Your task to perform on an android device: toggle wifi Image 0: 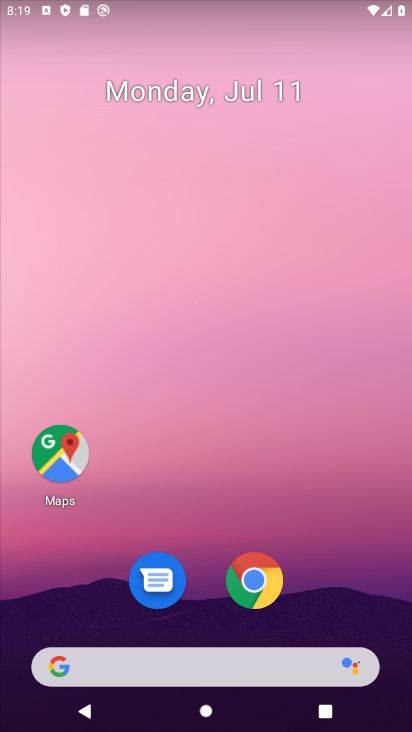
Step 0: drag from (323, 559) to (280, 14)
Your task to perform on an android device: toggle wifi Image 1: 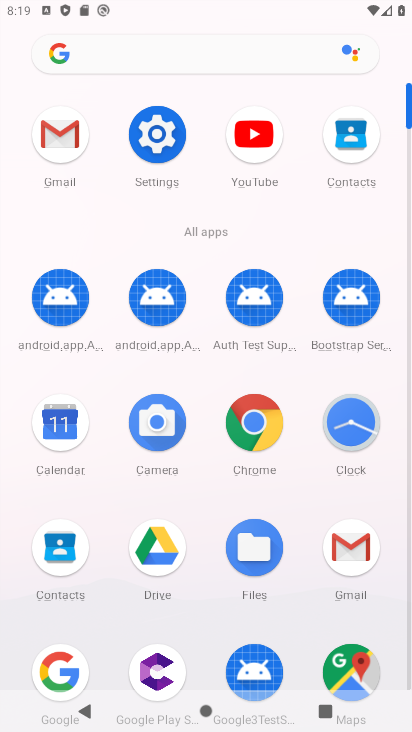
Step 1: click (167, 129)
Your task to perform on an android device: toggle wifi Image 2: 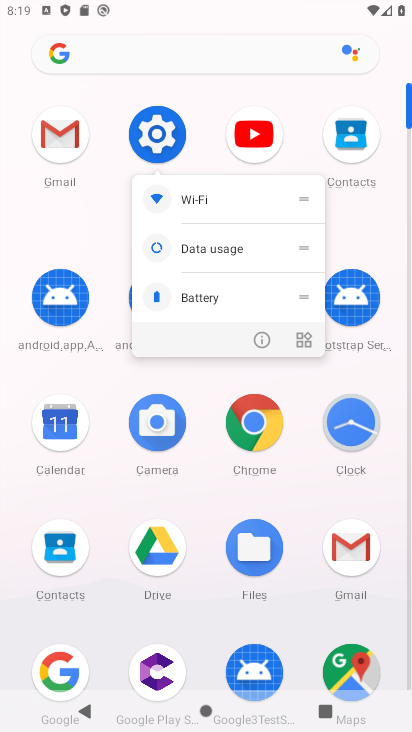
Step 2: click (167, 127)
Your task to perform on an android device: toggle wifi Image 3: 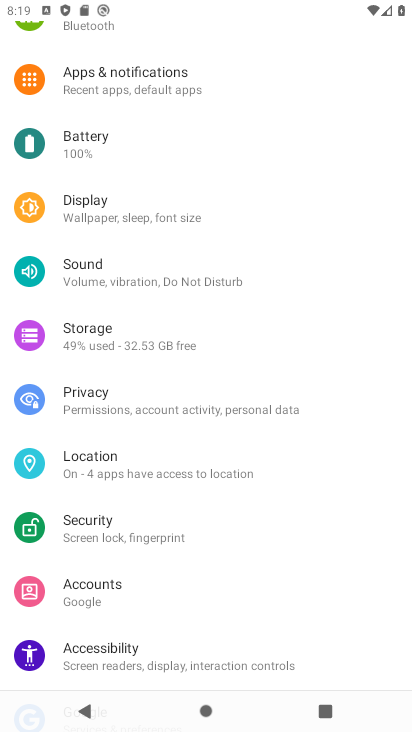
Step 3: drag from (260, 232) to (260, 634)
Your task to perform on an android device: toggle wifi Image 4: 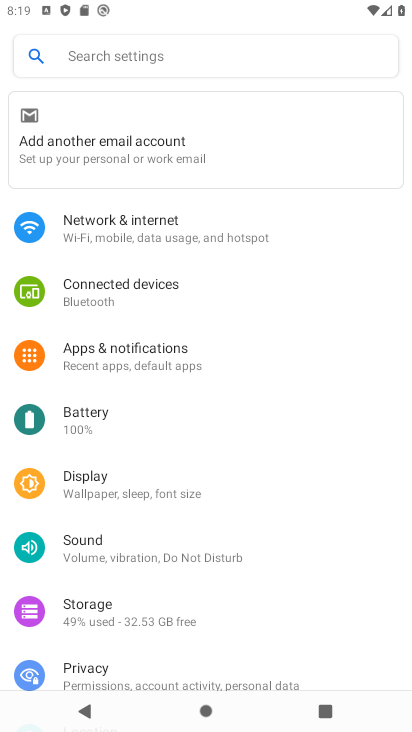
Step 4: click (196, 235)
Your task to perform on an android device: toggle wifi Image 5: 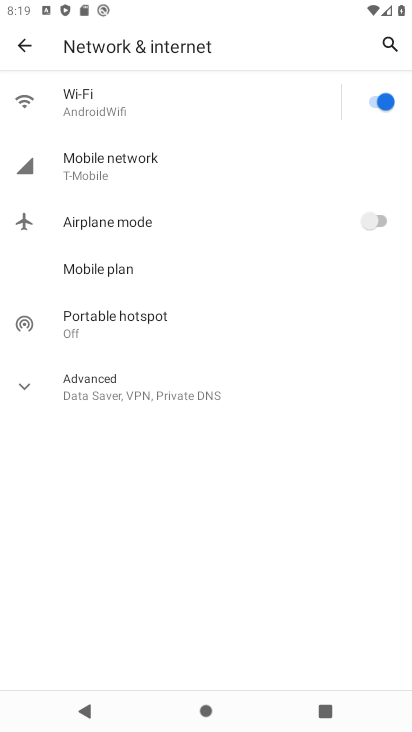
Step 5: click (376, 97)
Your task to perform on an android device: toggle wifi Image 6: 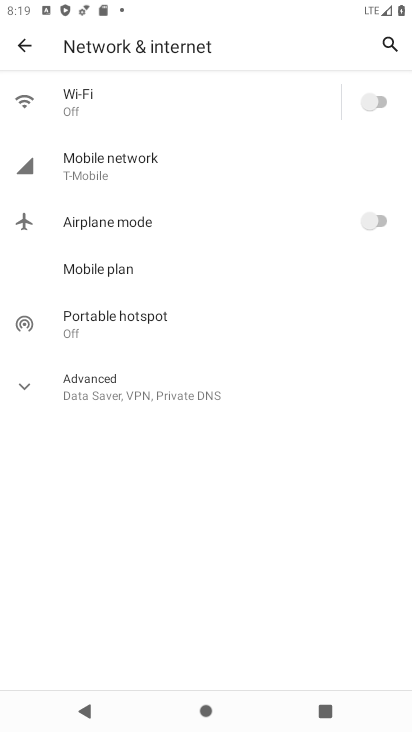
Step 6: task complete